Your task to perform on an android device: allow notifications from all sites in the chrome app Image 0: 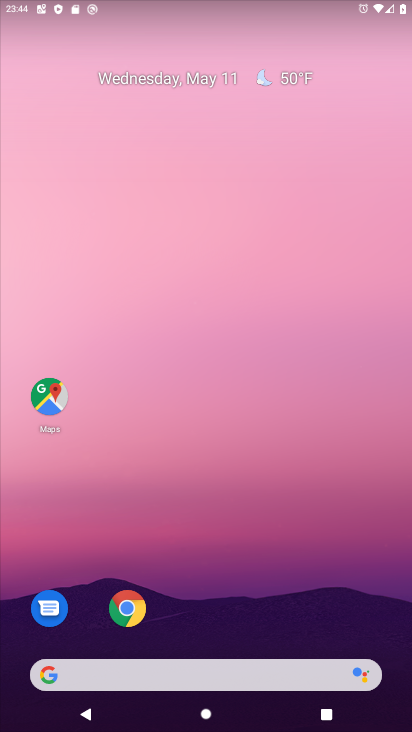
Step 0: click (129, 607)
Your task to perform on an android device: allow notifications from all sites in the chrome app Image 1: 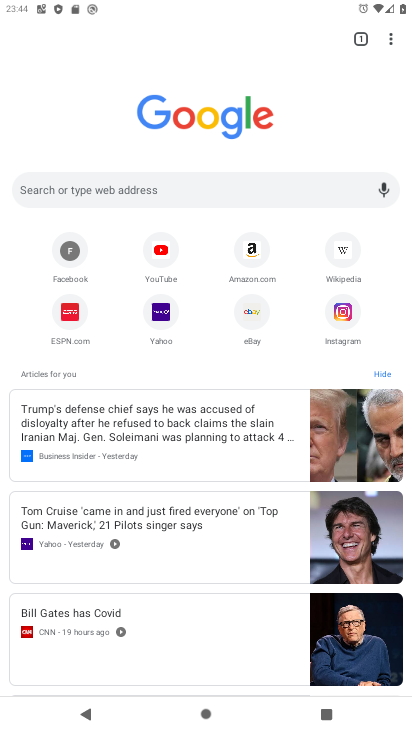
Step 1: click (391, 38)
Your task to perform on an android device: allow notifications from all sites in the chrome app Image 2: 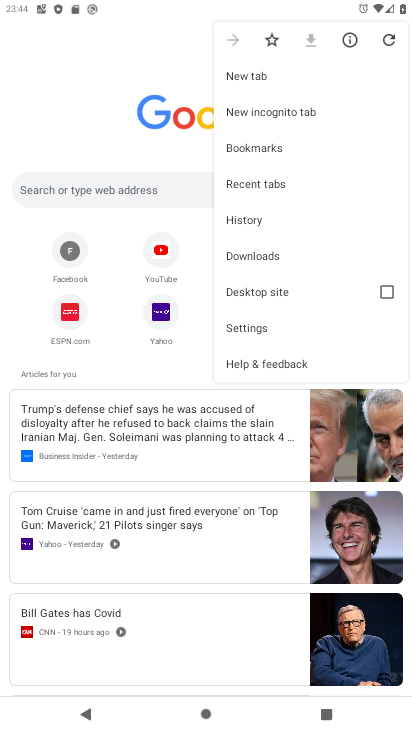
Step 2: click (248, 326)
Your task to perform on an android device: allow notifications from all sites in the chrome app Image 3: 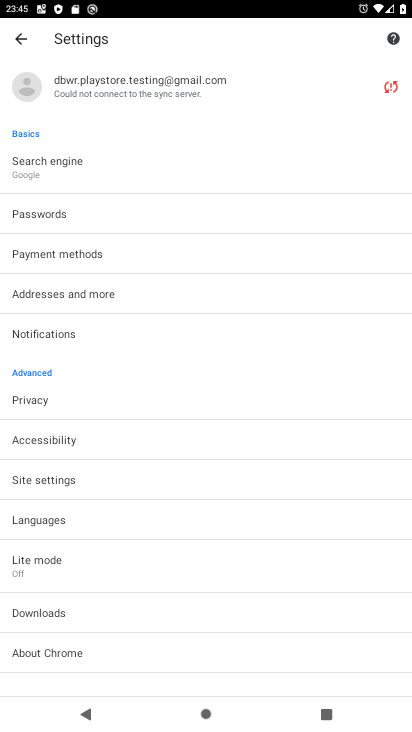
Step 3: click (46, 479)
Your task to perform on an android device: allow notifications from all sites in the chrome app Image 4: 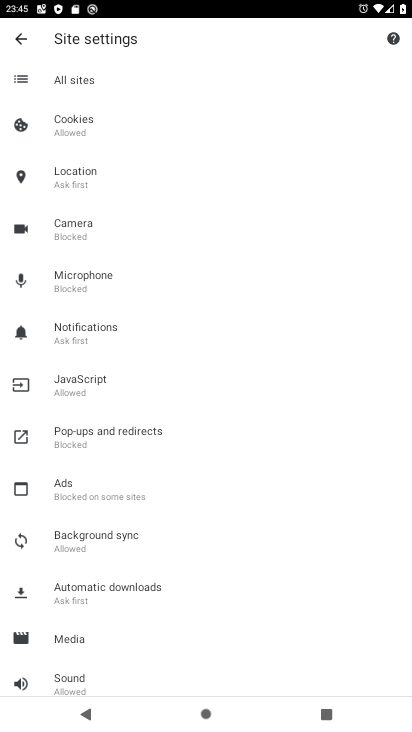
Step 4: click (89, 324)
Your task to perform on an android device: allow notifications from all sites in the chrome app Image 5: 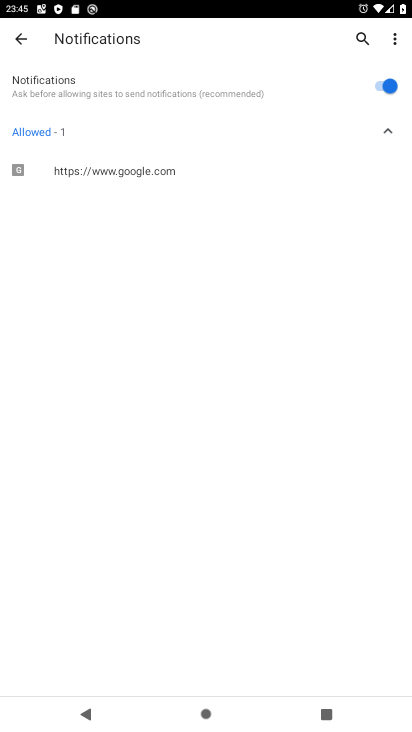
Step 5: task complete